Your task to perform on an android device: turn off translation in the chrome app Image 0: 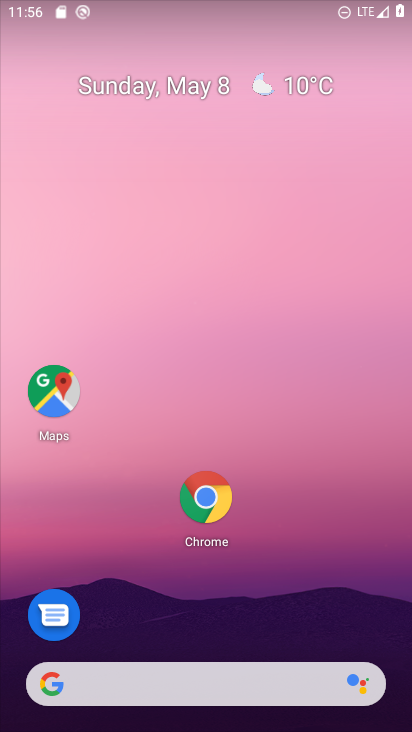
Step 0: drag from (327, 414) to (336, 54)
Your task to perform on an android device: turn off translation in the chrome app Image 1: 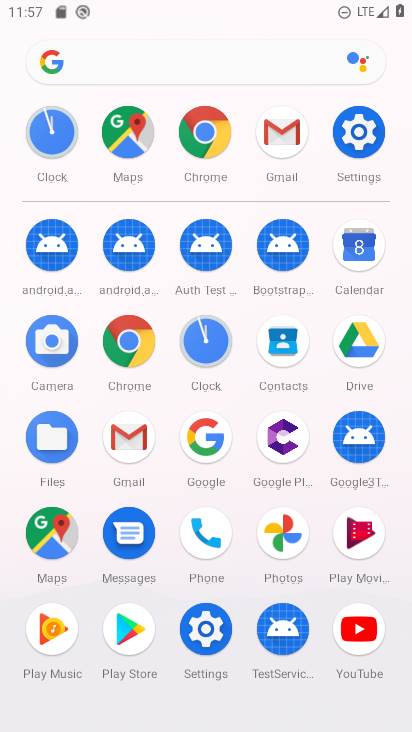
Step 1: click (133, 338)
Your task to perform on an android device: turn off translation in the chrome app Image 2: 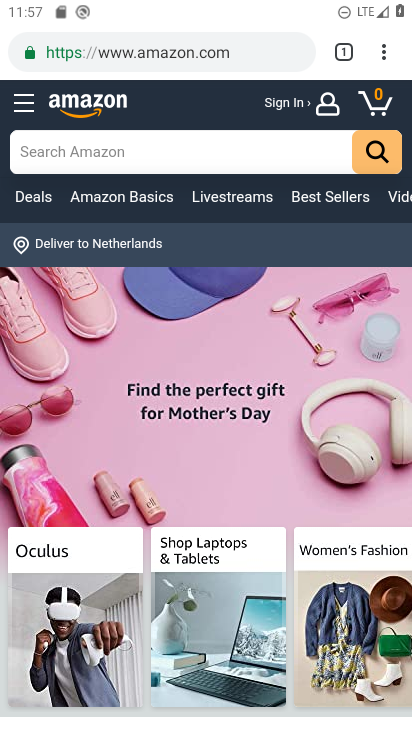
Step 2: click (389, 47)
Your task to perform on an android device: turn off translation in the chrome app Image 3: 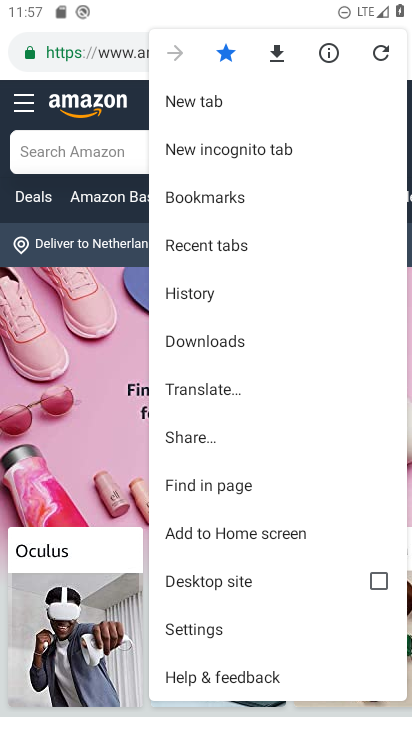
Step 3: click (198, 631)
Your task to perform on an android device: turn off translation in the chrome app Image 4: 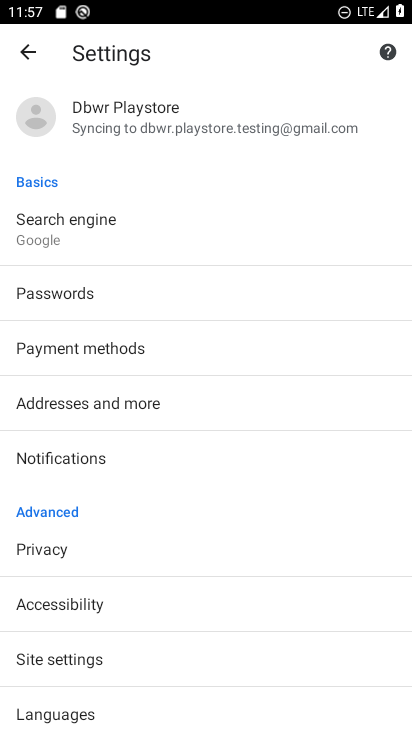
Step 4: drag from (185, 677) to (318, 253)
Your task to perform on an android device: turn off translation in the chrome app Image 5: 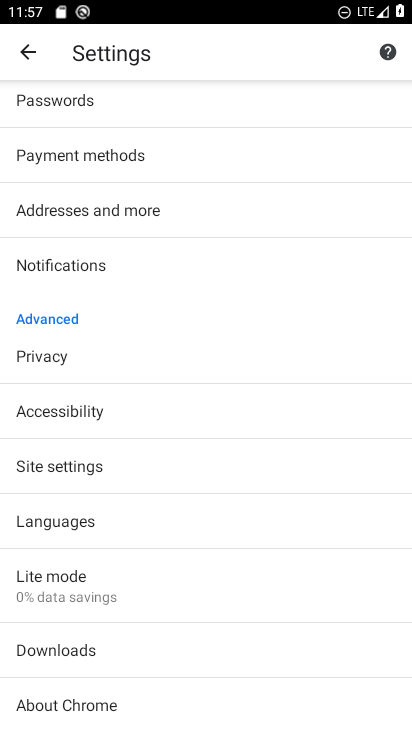
Step 5: click (81, 525)
Your task to perform on an android device: turn off translation in the chrome app Image 6: 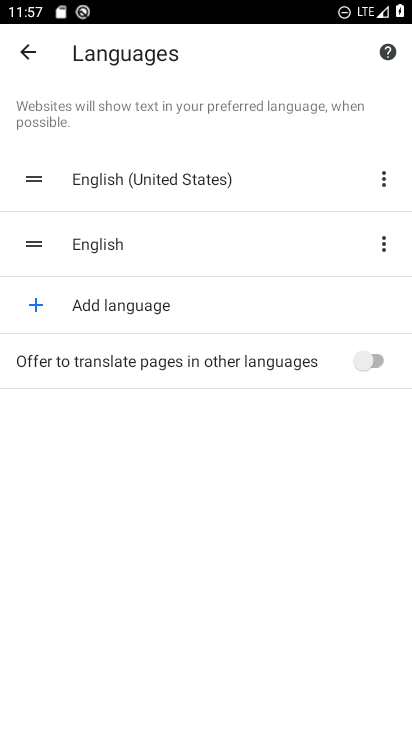
Step 6: task complete